Your task to perform on an android device: Open privacy settings Image 0: 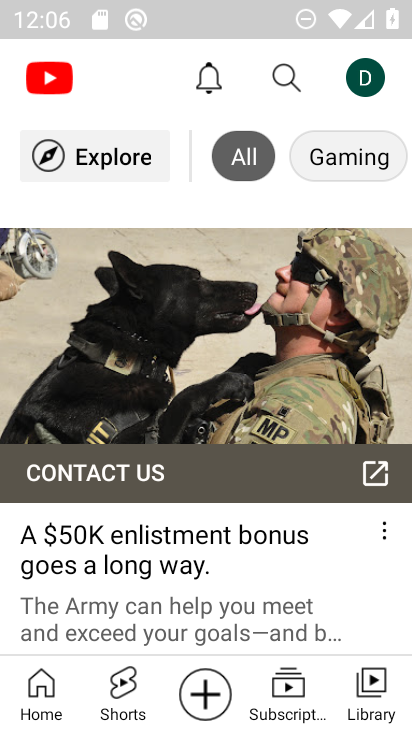
Step 0: press home button
Your task to perform on an android device: Open privacy settings Image 1: 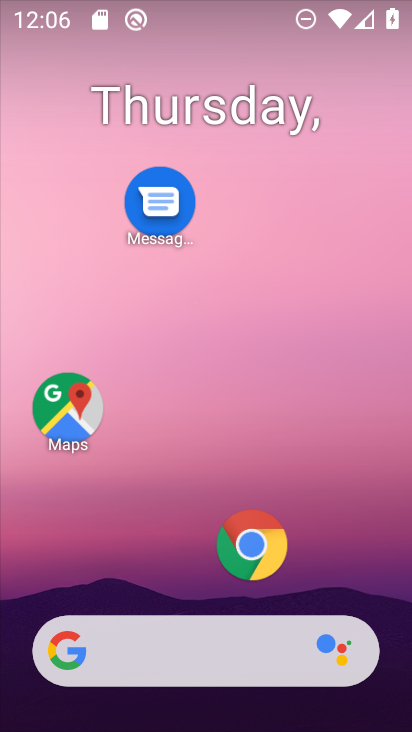
Step 1: drag from (182, 553) to (201, 188)
Your task to perform on an android device: Open privacy settings Image 2: 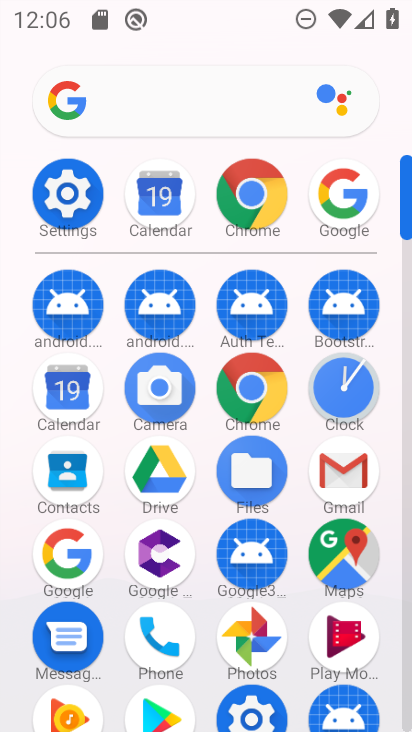
Step 2: click (90, 203)
Your task to perform on an android device: Open privacy settings Image 3: 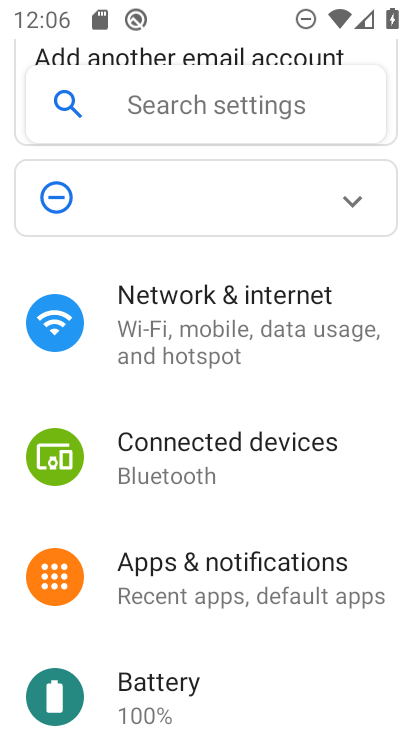
Step 3: drag from (199, 581) to (203, 344)
Your task to perform on an android device: Open privacy settings Image 4: 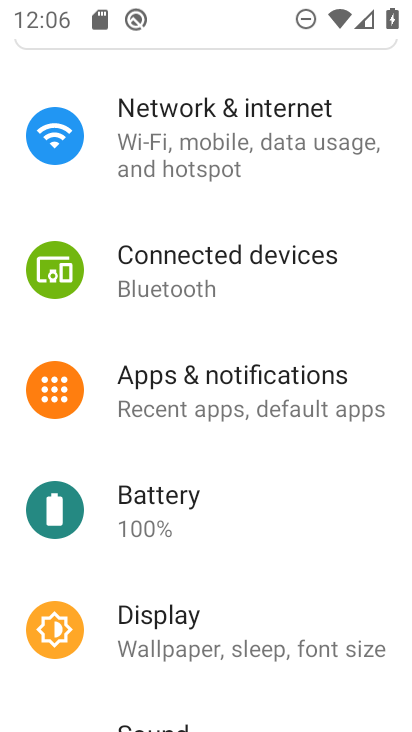
Step 4: drag from (209, 580) to (221, 351)
Your task to perform on an android device: Open privacy settings Image 5: 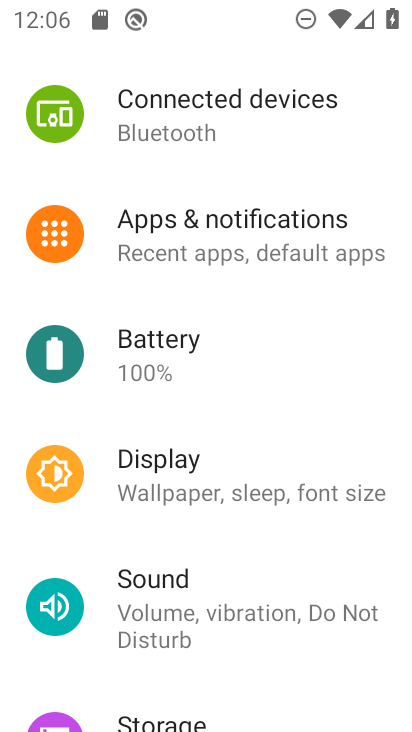
Step 5: drag from (221, 573) to (248, 325)
Your task to perform on an android device: Open privacy settings Image 6: 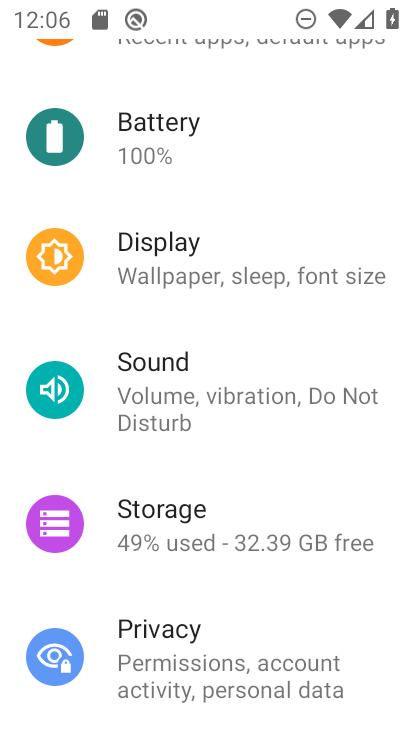
Step 6: click (196, 647)
Your task to perform on an android device: Open privacy settings Image 7: 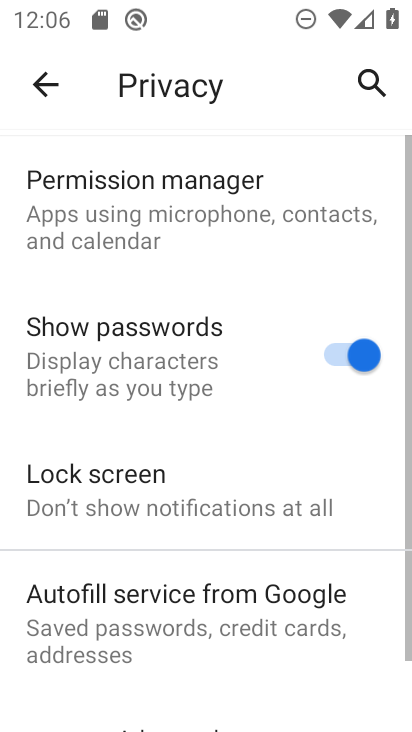
Step 7: task complete